Your task to perform on an android device: turn off data saver in the chrome app Image 0: 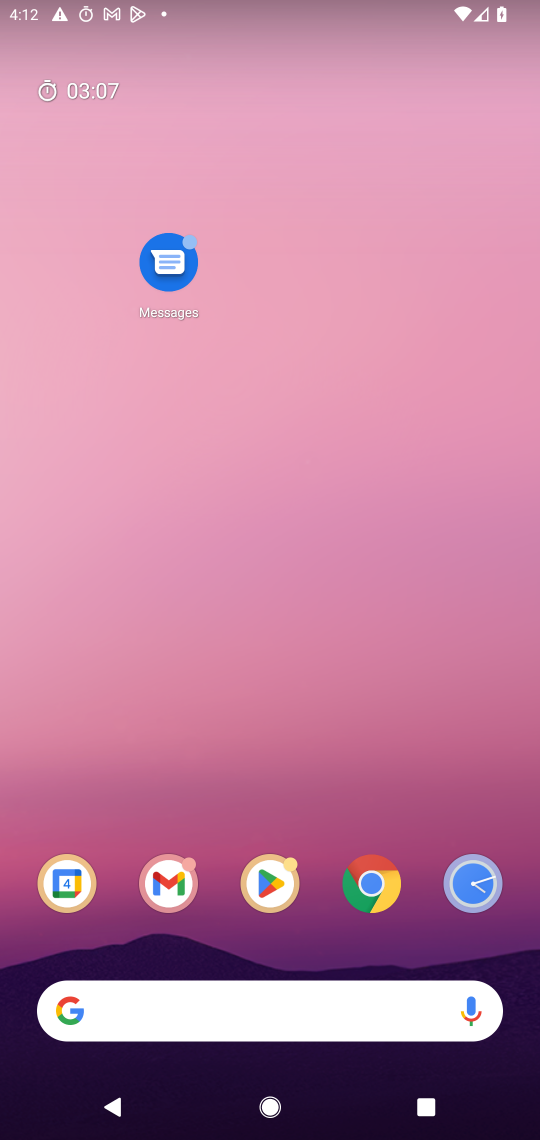
Step 0: click (370, 884)
Your task to perform on an android device: turn off data saver in the chrome app Image 1: 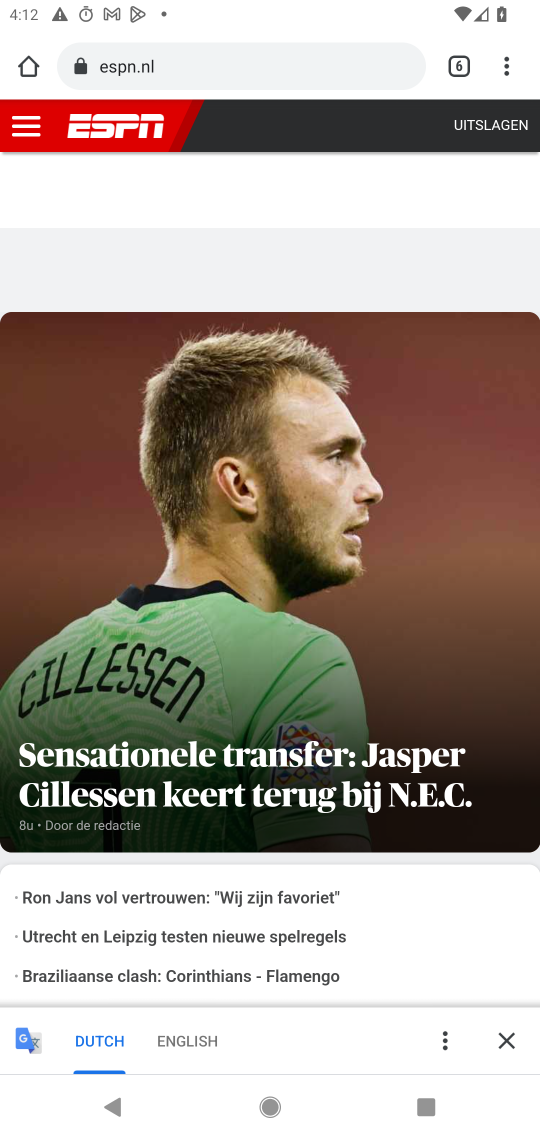
Step 1: click (505, 71)
Your task to perform on an android device: turn off data saver in the chrome app Image 2: 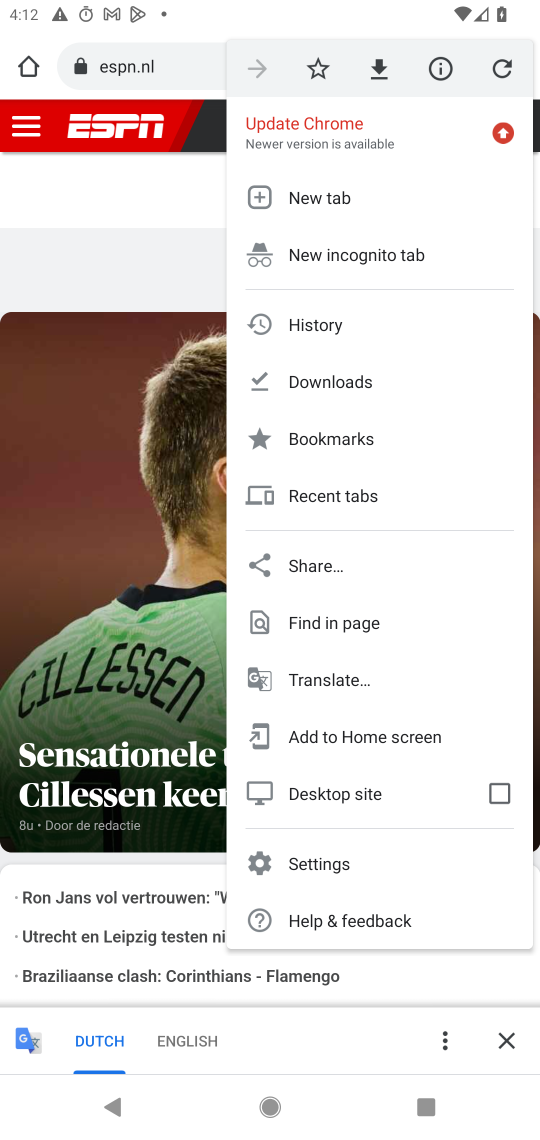
Step 2: click (310, 858)
Your task to perform on an android device: turn off data saver in the chrome app Image 3: 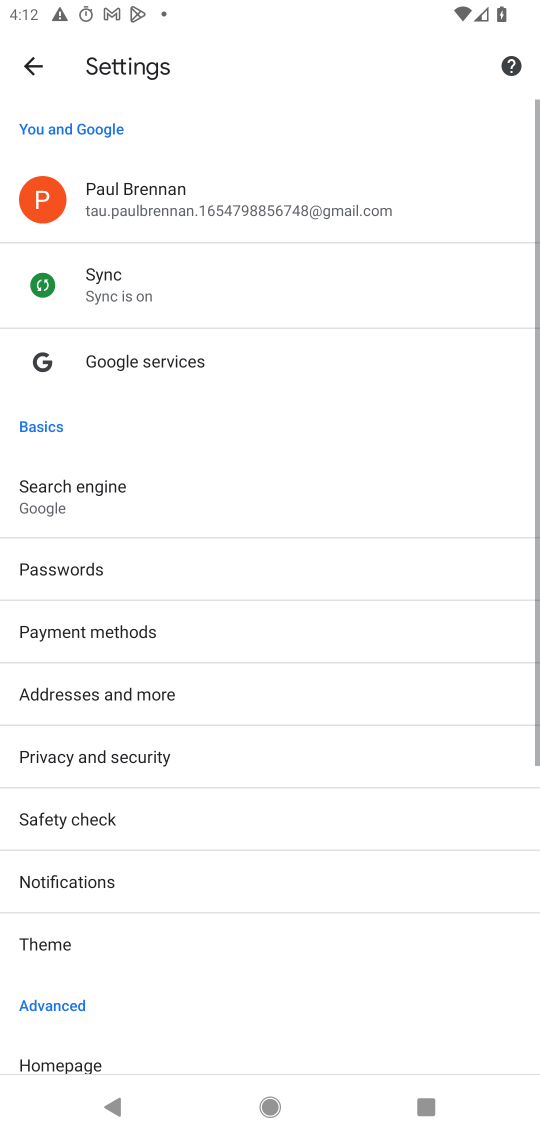
Step 3: drag from (123, 987) to (153, 594)
Your task to perform on an android device: turn off data saver in the chrome app Image 4: 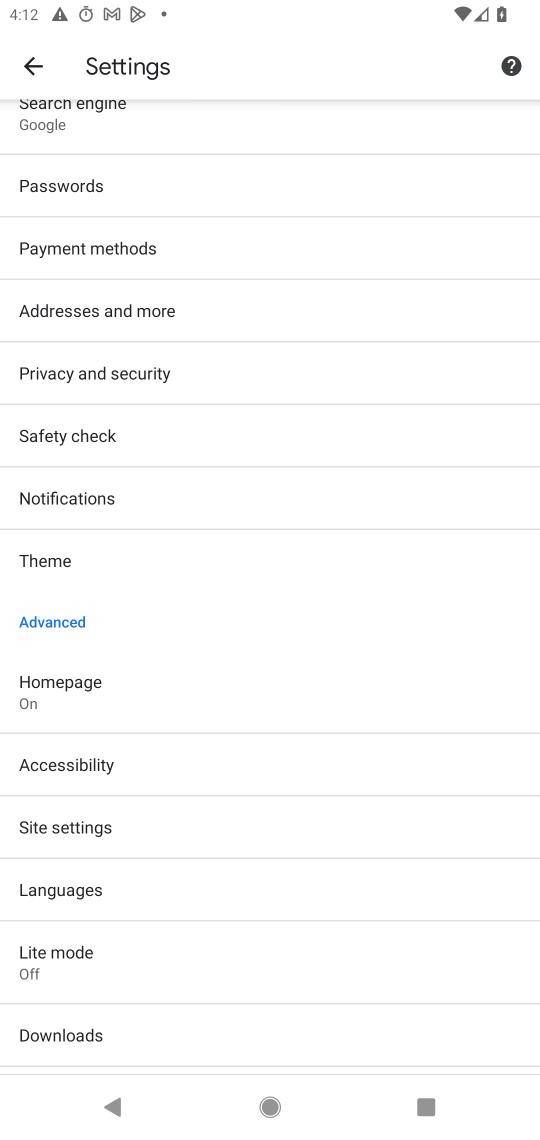
Step 4: click (83, 948)
Your task to perform on an android device: turn off data saver in the chrome app Image 5: 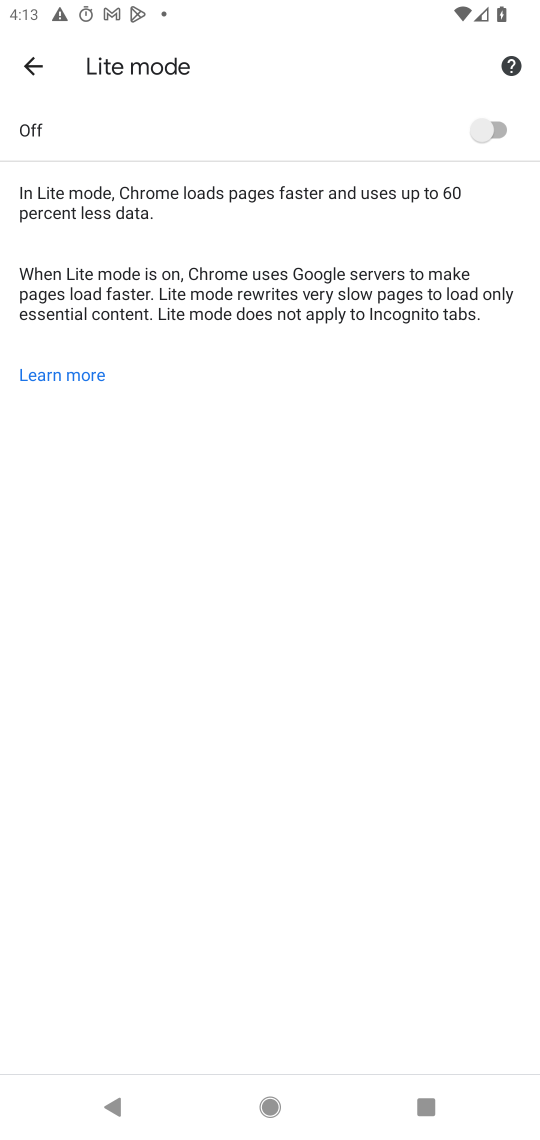
Step 5: task complete